Your task to perform on an android device: turn off notifications in google photos Image 0: 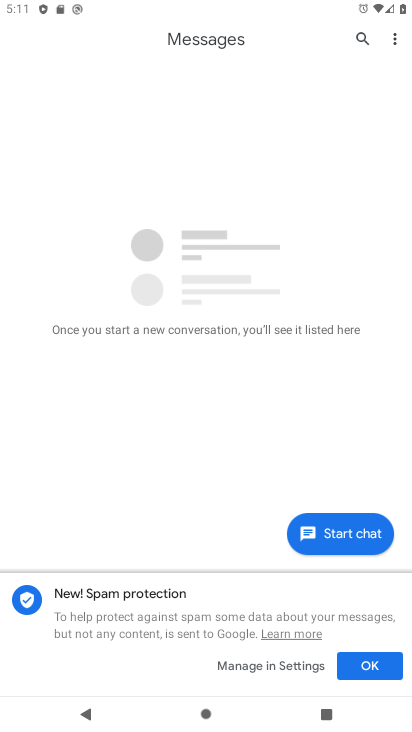
Step 0: press home button
Your task to perform on an android device: turn off notifications in google photos Image 1: 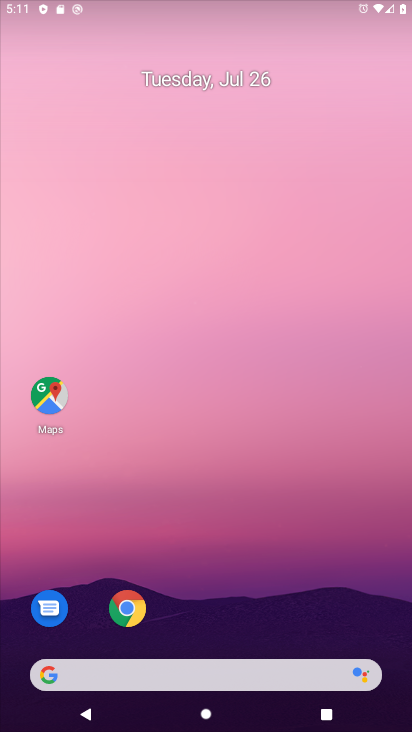
Step 1: drag from (395, 686) to (238, 54)
Your task to perform on an android device: turn off notifications in google photos Image 2: 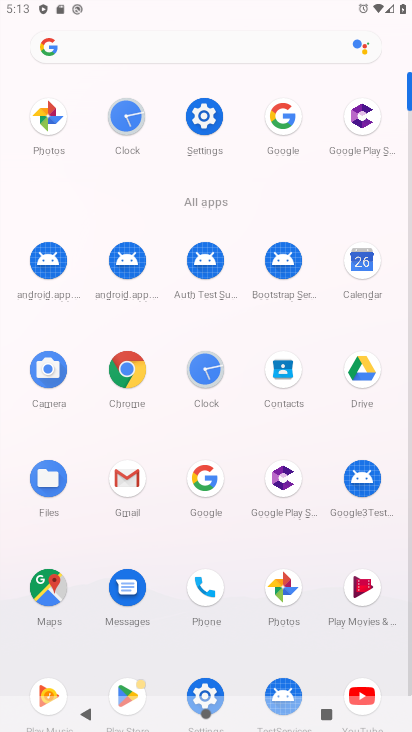
Step 2: click (277, 594)
Your task to perform on an android device: turn off notifications in google photos Image 3: 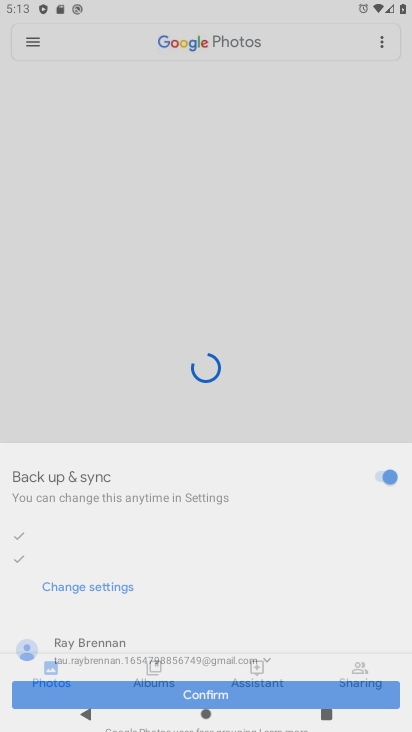
Step 3: click (25, 41)
Your task to perform on an android device: turn off notifications in google photos Image 4: 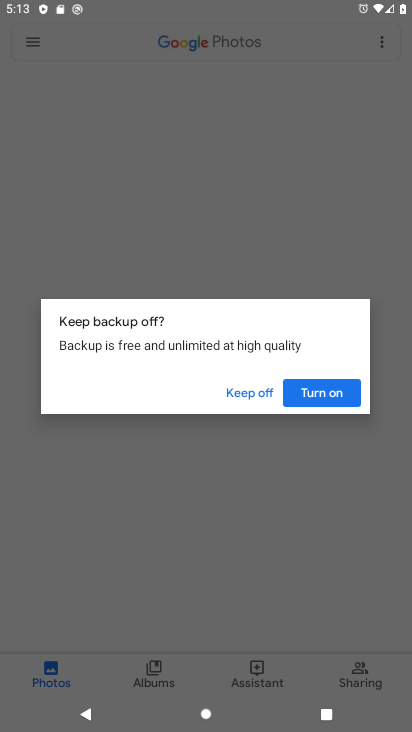
Step 4: click (310, 402)
Your task to perform on an android device: turn off notifications in google photos Image 5: 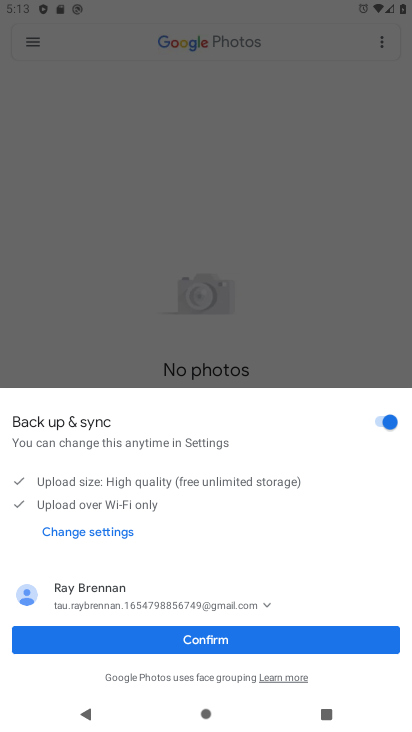
Step 5: click (192, 638)
Your task to perform on an android device: turn off notifications in google photos Image 6: 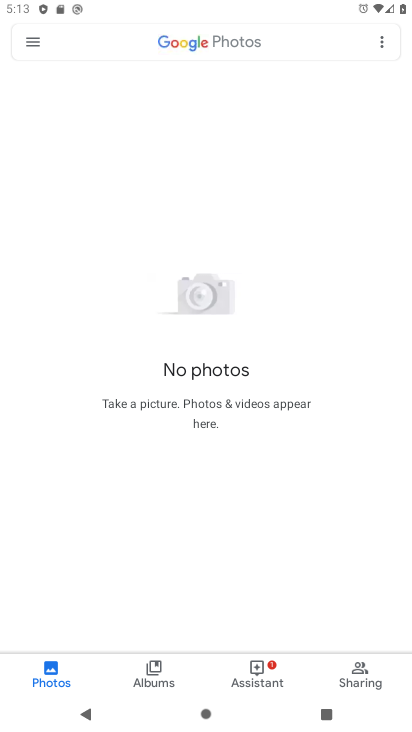
Step 6: click (36, 40)
Your task to perform on an android device: turn off notifications in google photos Image 7: 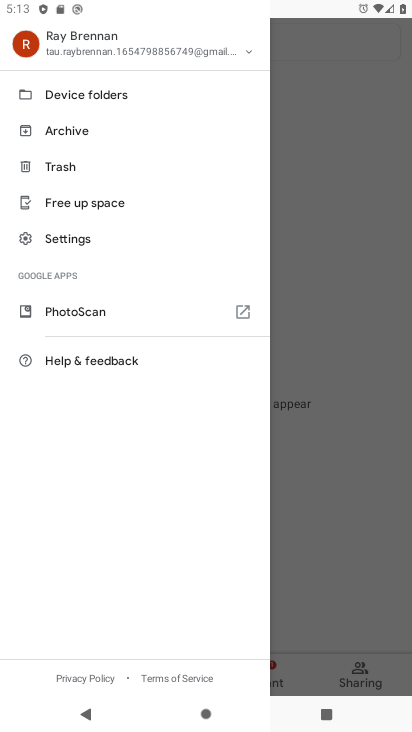
Step 7: click (84, 244)
Your task to perform on an android device: turn off notifications in google photos Image 8: 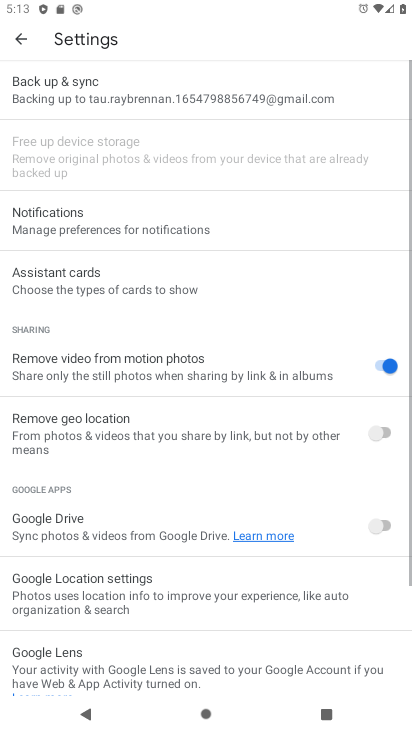
Step 8: click (89, 242)
Your task to perform on an android device: turn off notifications in google photos Image 9: 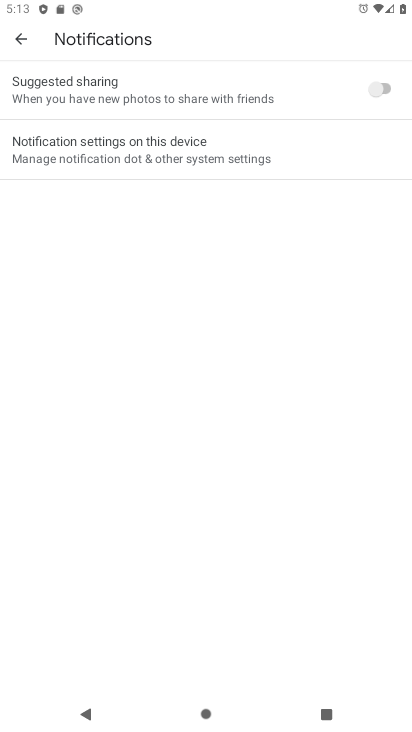
Step 9: task complete